Your task to perform on an android device: Search for Mexican restaurants on Maps Image 0: 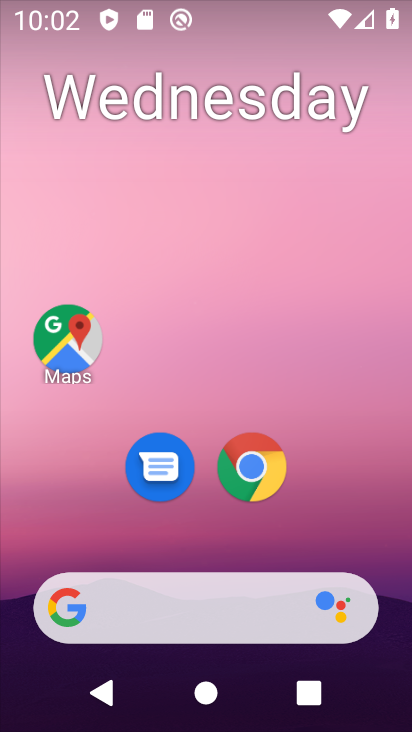
Step 0: drag from (349, 488) to (384, 128)
Your task to perform on an android device: Search for Mexican restaurants on Maps Image 1: 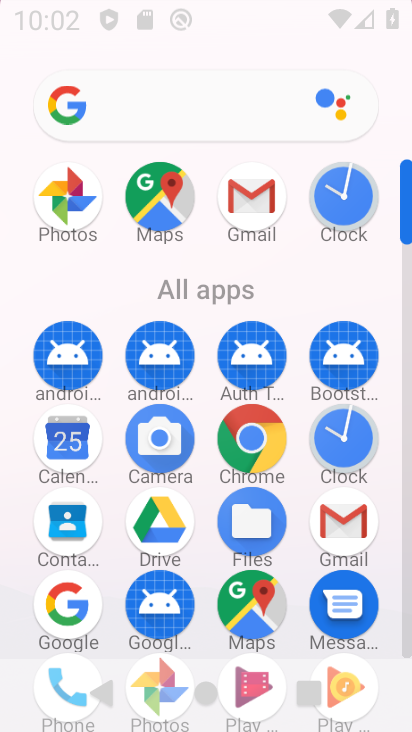
Step 1: drag from (350, 477) to (393, 140)
Your task to perform on an android device: Search for Mexican restaurants on Maps Image 2: 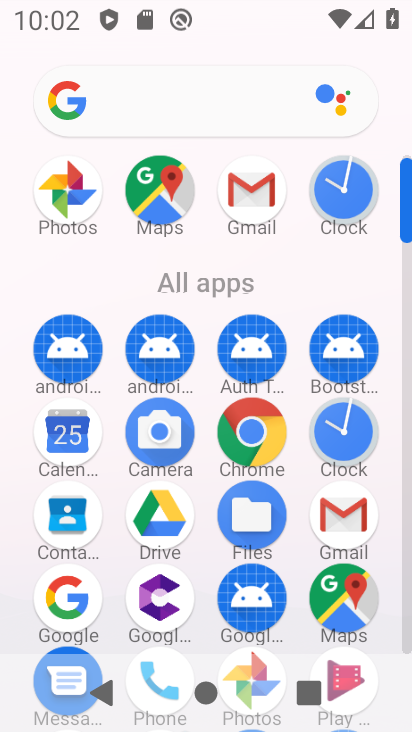
Step 2: click (332, 587)
Your task to perform on an android device: Search for Mexican restaurants on Maps Image 3: 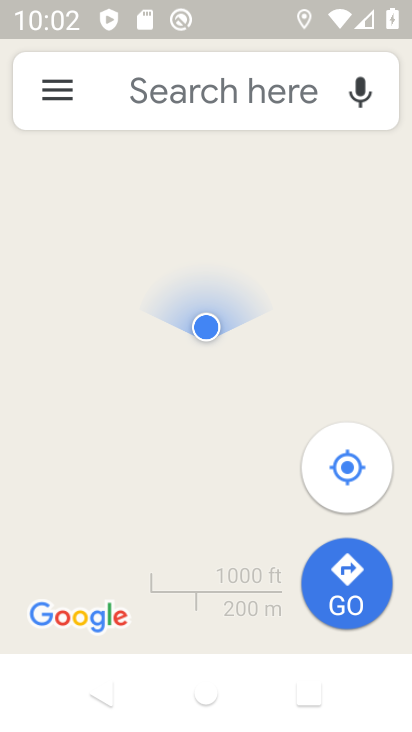
Step 3: click (212, 72)
Your task to perform on an android device: Search for Mexican restaurants on Maps Image 4: 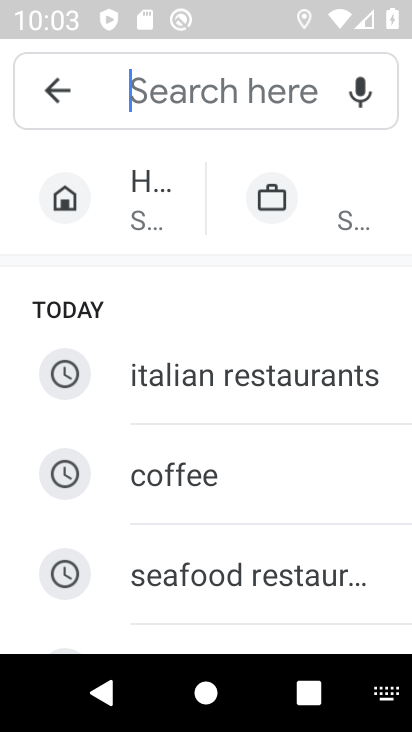
Step 4: type "Mexican restaurants"
Your task to perform on an android device: Search for Mexican restaurants on Maps Image 5: 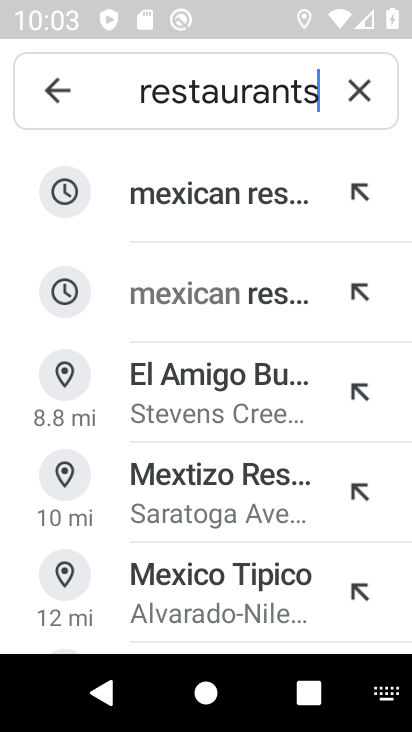
Step 5: press enter
Your task to perform on an android device: Search for Mexican restaurants on Maps Image 6: 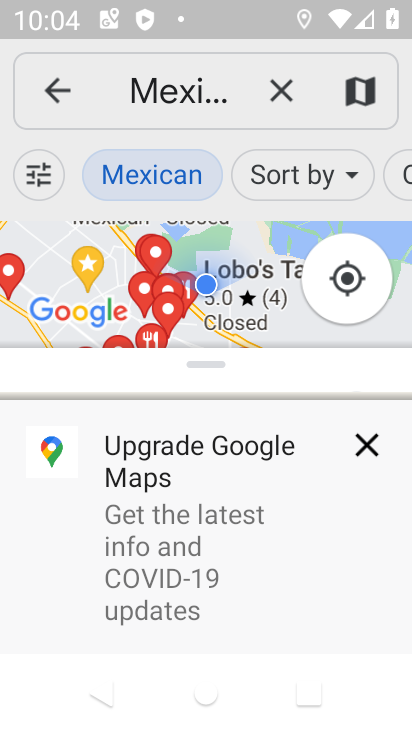
Step 6: task complete